Your task to perform on an android device: toggle location history Image 0: 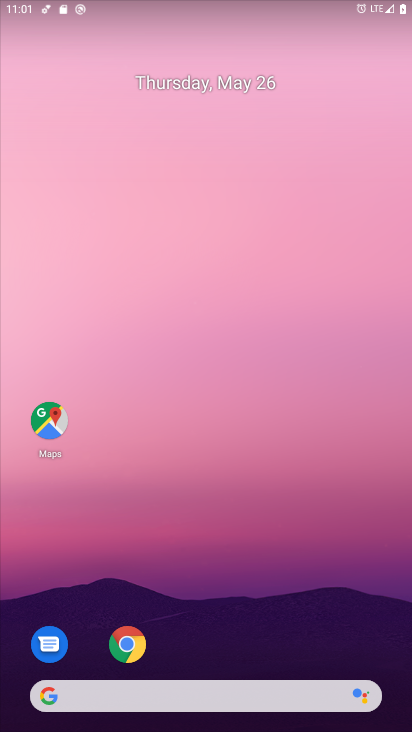
Step 0: drag from (310, 614) to (347, 121)
Your task to perform on an android device: toggle location history Image 1: 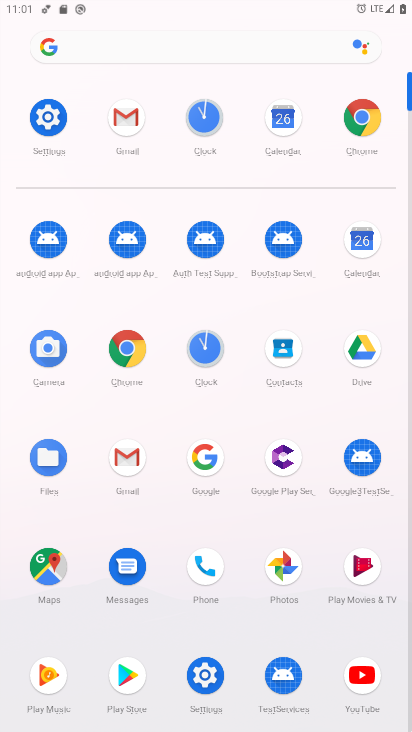
Step 1: click (47, 136)
Your task to perform on an android device: toggle location history Image 2: 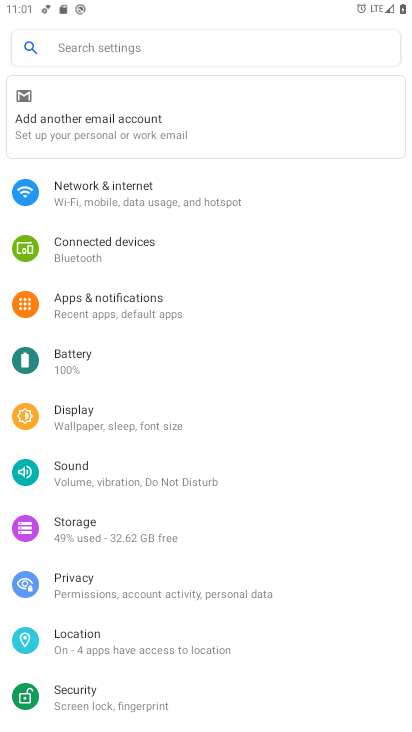
Step 2: drag from (306, 475) to (307, 382)
Your task to perform on an android device: toggle location history Image 3: 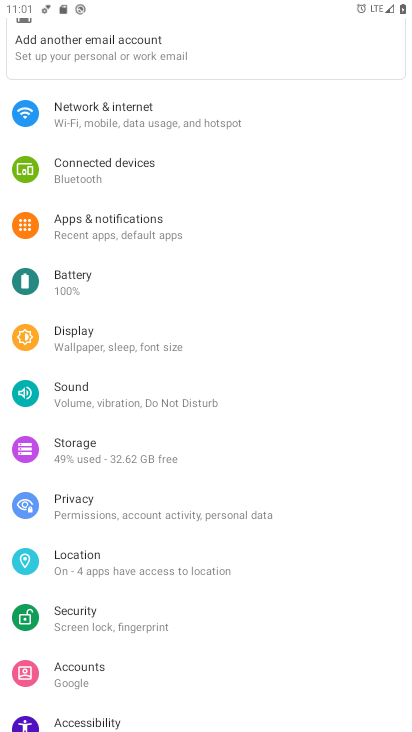
Step 3: click (261, 557)
Your task to perform on an android device: toggle location history Image 4: 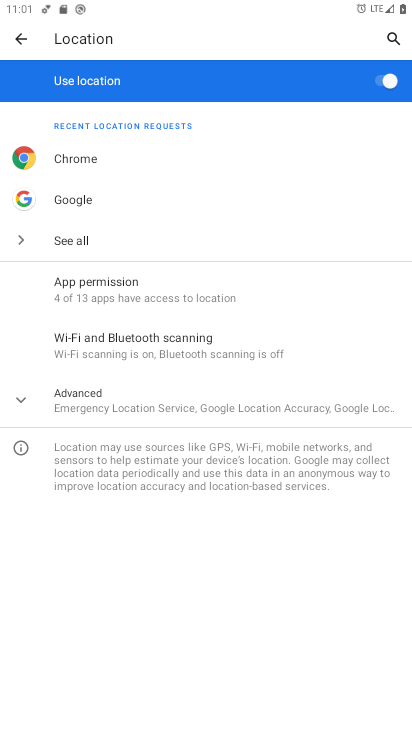
Step 4: click (226, 410)
Your task to perform on an android device: toggle location history Image 5: 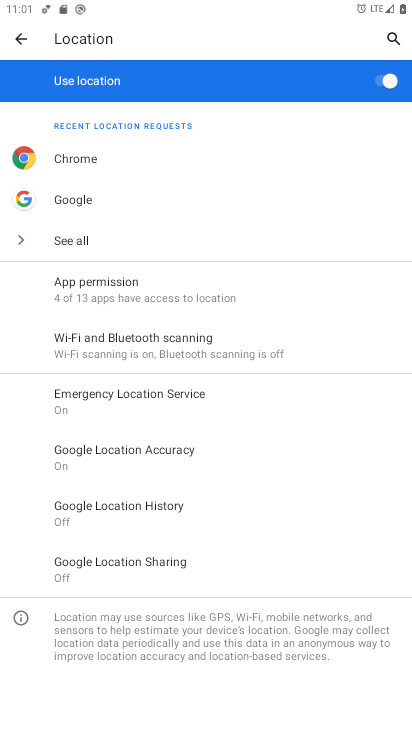
Step 5: click (177, 508)
Your task to perform on an android device: toggle location history Image 6: 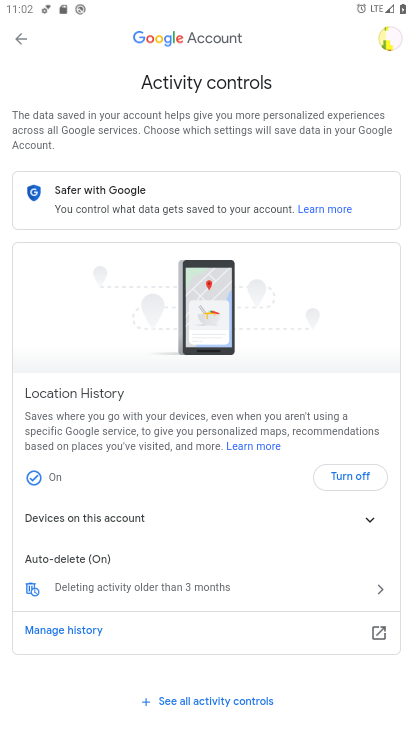
Step 6: click (342, 478)
Your task to perform on an android device: toggle location history Image 7: 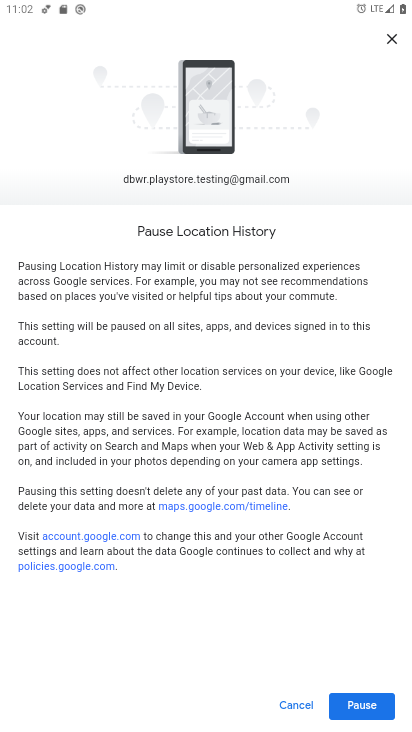
Step 7: click (363, 712)
Your task to perform on an android device: toggle location history Image 8: 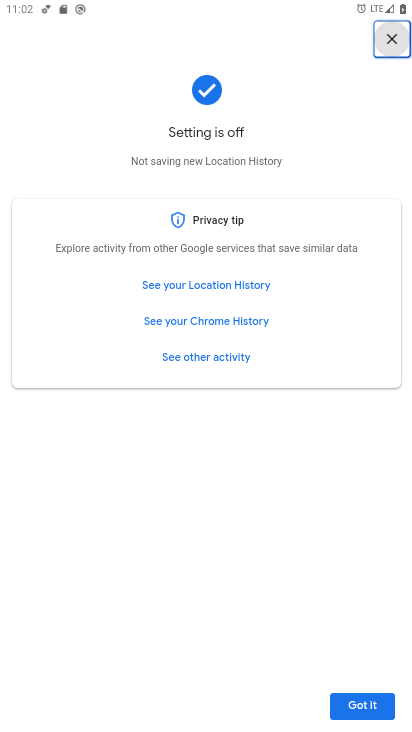
Step 8: task complete